Your task to perform on an android device: uninstall "Facebook" Image 0: 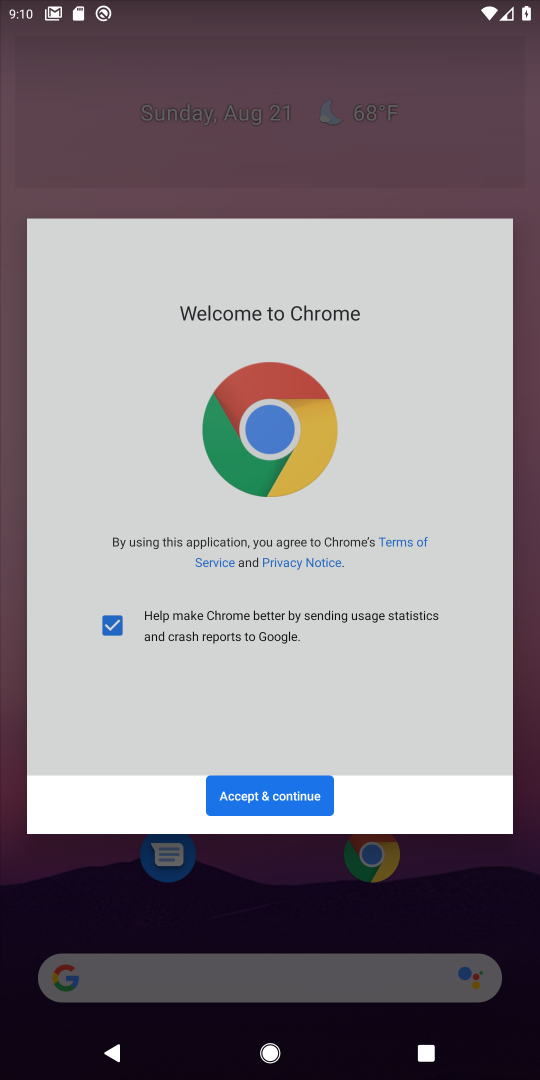
Step 0: task impossible